Your task to perform on an android device: check the backup settings in the google photos Image 0: 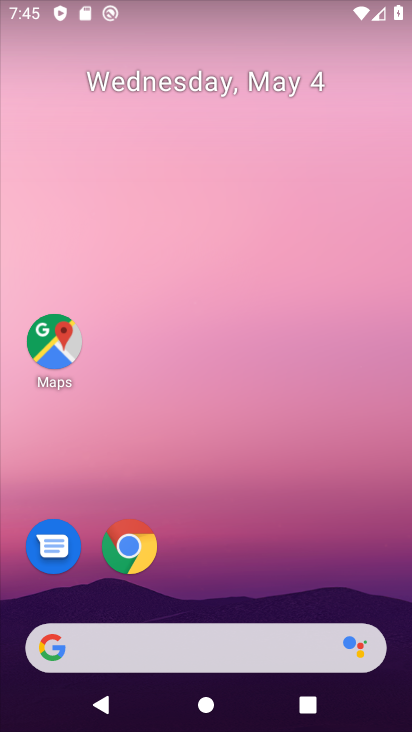
Step 0: drag from (261, 553) to (228, 294)
Your task to perform on an android device: check the backup settings in the google photos Image 1: 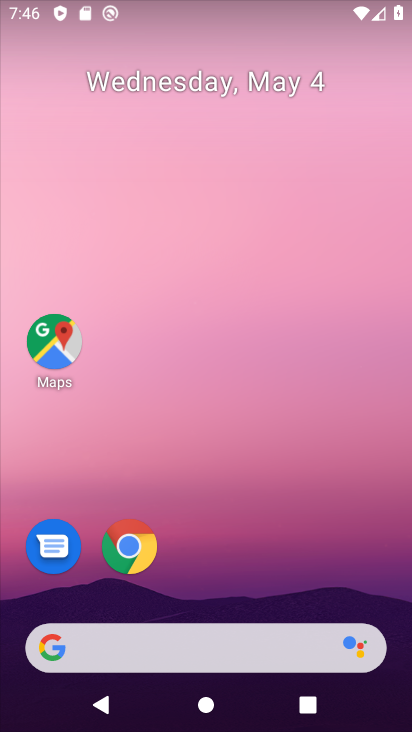
Step 1: drag from (263, 565) to (242, 0)
Your task to perform on an android device: check the backup settings in the google photos Image 2: 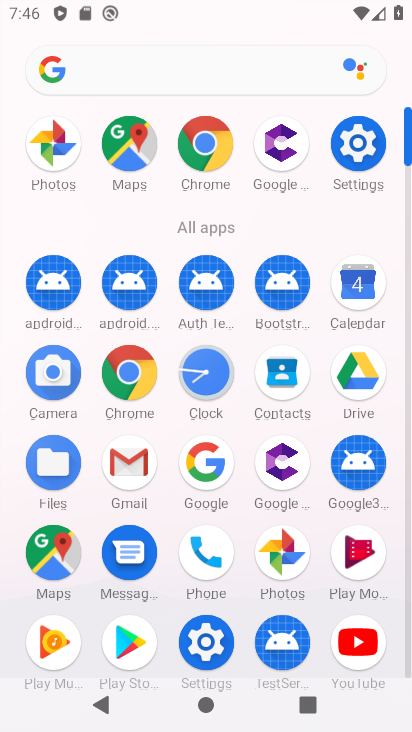
Step 2: click (294, 552)
Your task to perform on an android device: check the backup settings in the google photos Image 3: 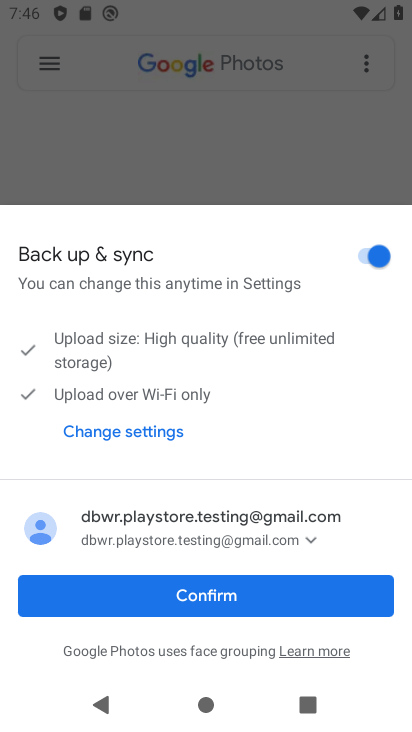
Step 3: click (54, 70)
Your task to perform on an android device: check the backup settings in the google photos Image 4: 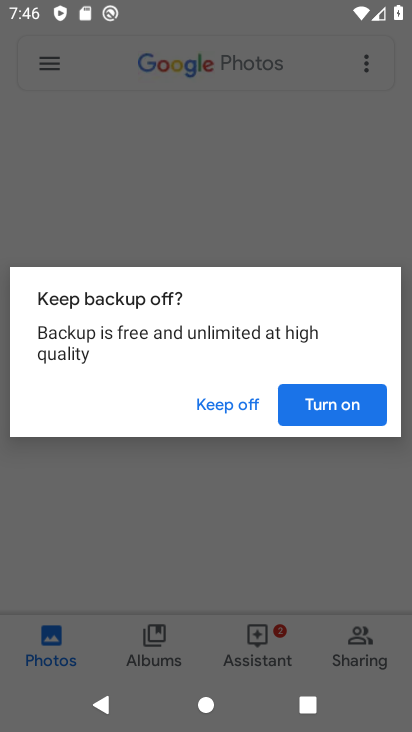
Step 4: click (221, 399)
Your task to perform on an android device: check the backup settings in the google photos Image 5: 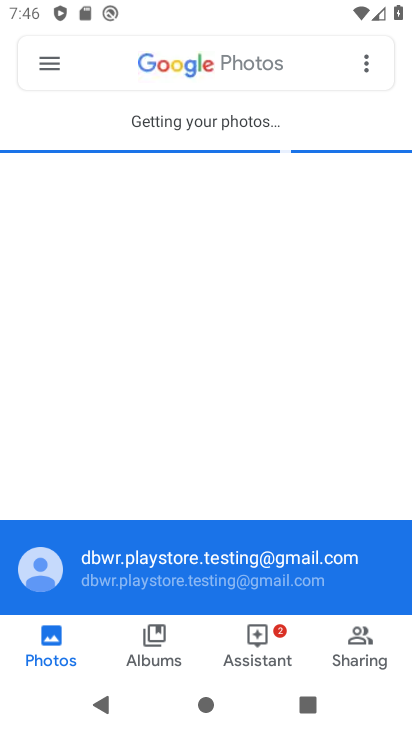
Step 5: click (46, 54)
Your task to perform on an android device: check the backup settings in the google photos Image 6: 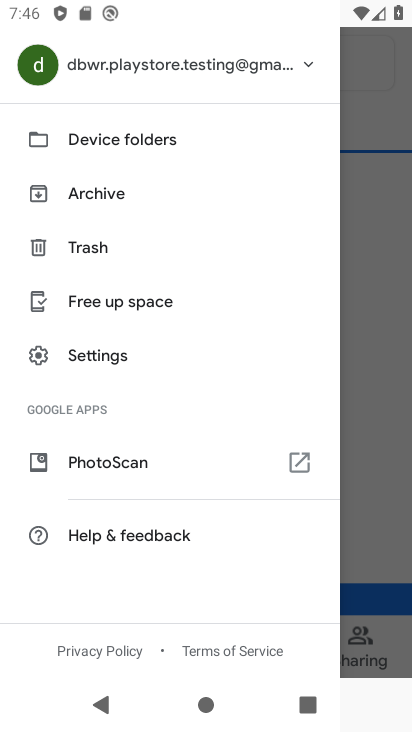
Step 6: click (104, 355)
Your task to perform on an android device: check the backup settings in the google photos Image 7: 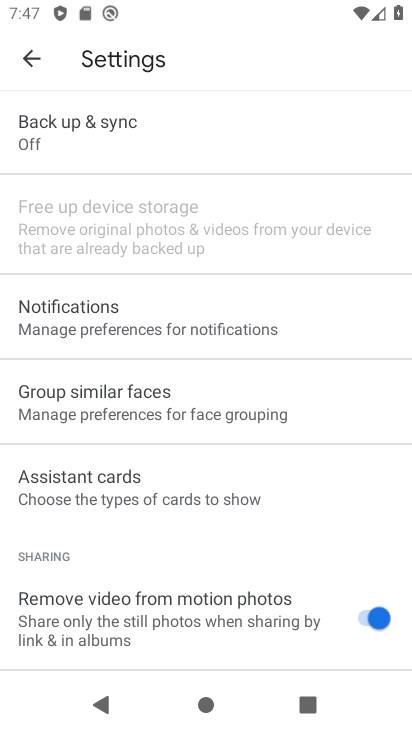
Step 7: click (76, 130)
Your task to perform on an android device: check the backup settings in the google photos Image 8: 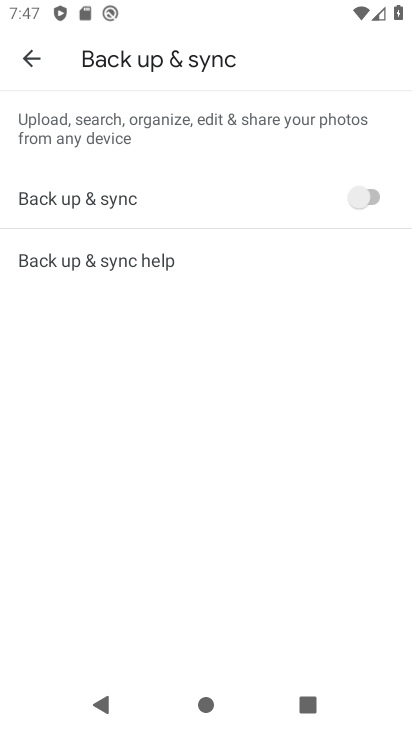
Step 8: task complete